Your task to perform on an android device: turn notification dots off Image 0: 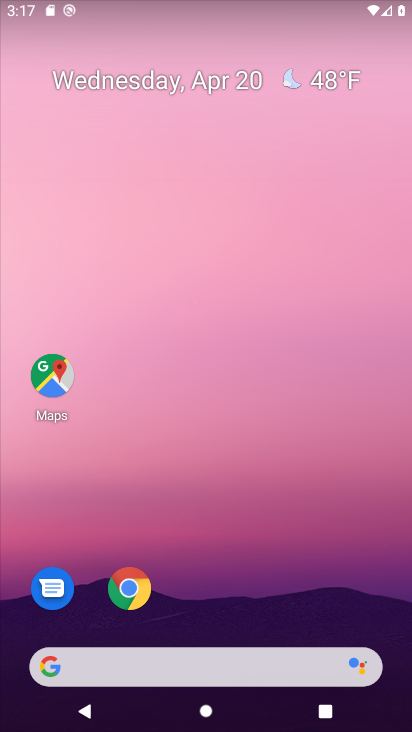
Step 0: drag from (283, 571) to (306, 198)
Your task to perform on an android device: turn notification dots off Image 1: 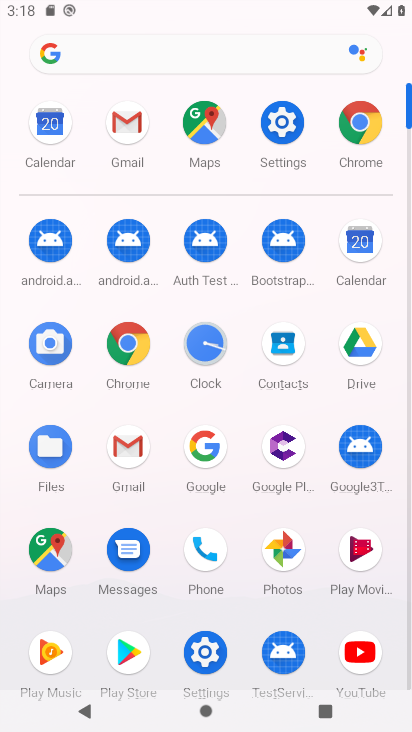
Step 1: click (278, 126)
Your task to perform on an android device: turn notification dots off Image 2: 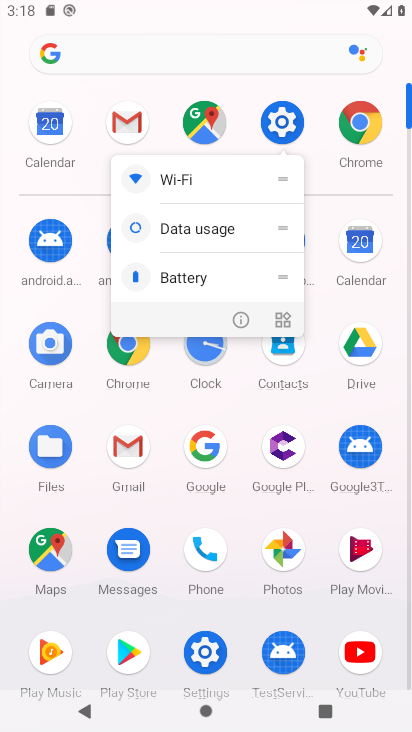
Step 2: click (270, 118)
Your task to perform on an android device: turn notification dots off Image 3: 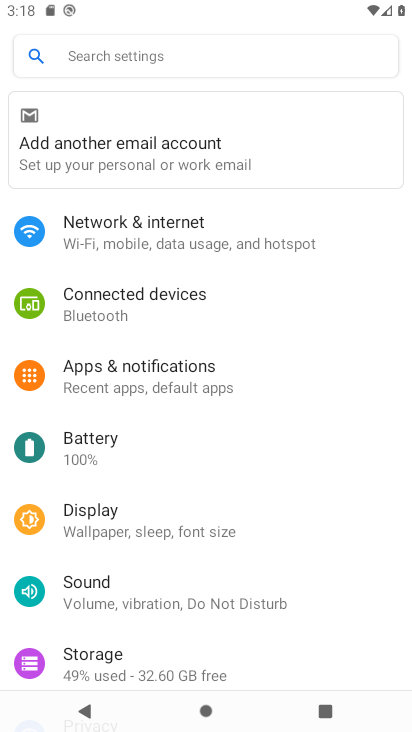
Step 3: drag from (365, 586) to (366, 395)
Your task to perform on an android device: turn notification dots off Image 4: 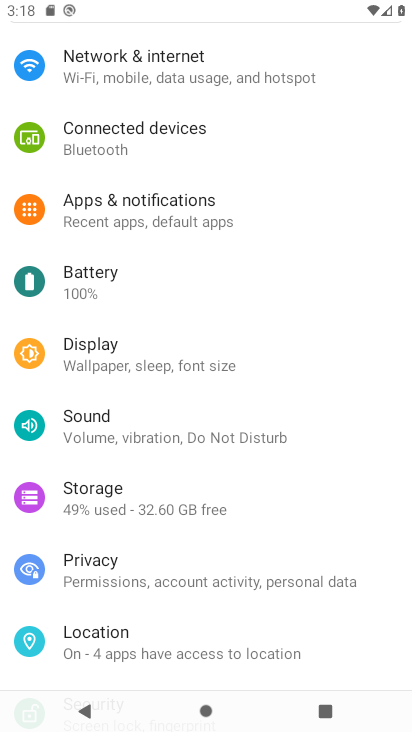
Step 4: drag from (346, 624) to (346, 413)
Your task to perform on an android device: turn notification dots off Image 5: 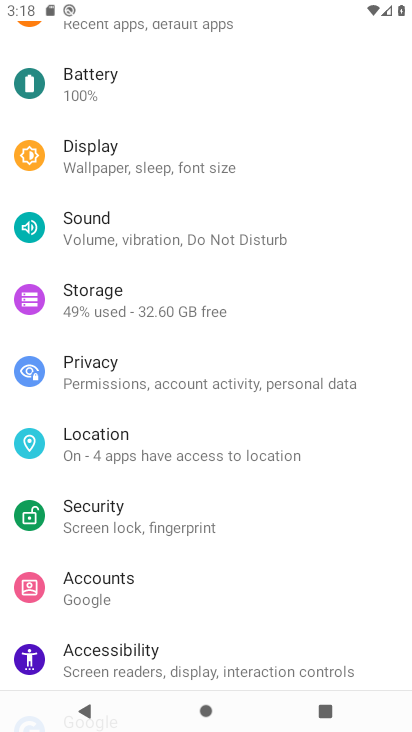
Step 5: drag from (356, 593) to (353, 392)
Your task to perform on an android device: turn notification dots off Image 6: 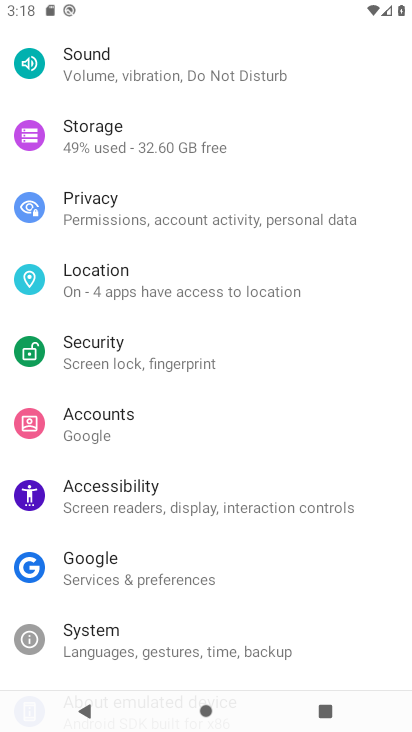
Step 6: drag from (368, 274) to (367, 420)
Your task to perform on an android device: turn notification dots off Image 7: 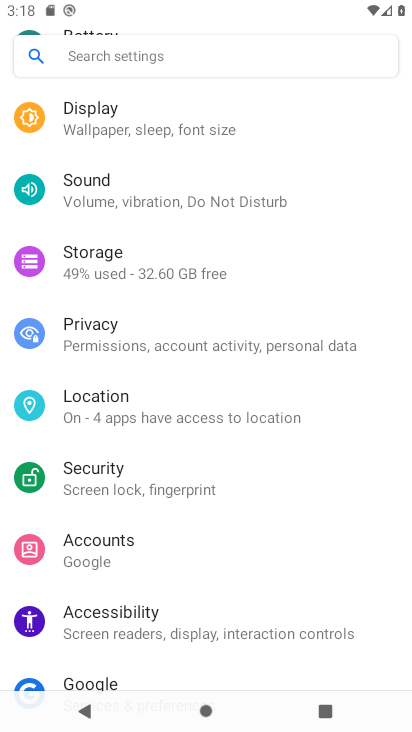
Step 7: drag from (380, 359) to (380, 420)
Your task to perform on an android device: turn notification dots off Image 8: 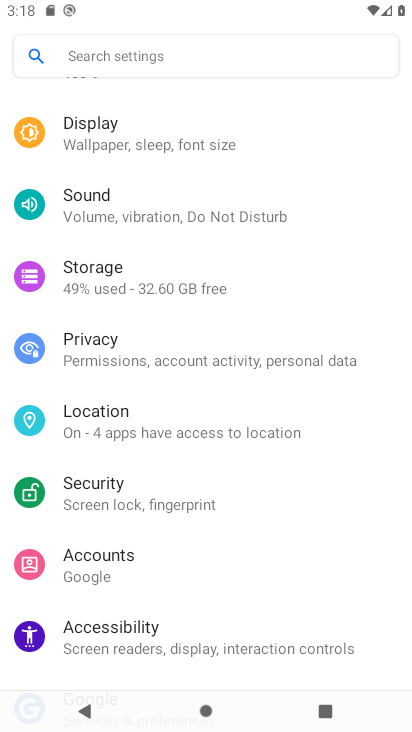
Step 8: drag from (355, 234) to (356, 504)
Your task to perform on an android device: turn notification dots off Image 9: 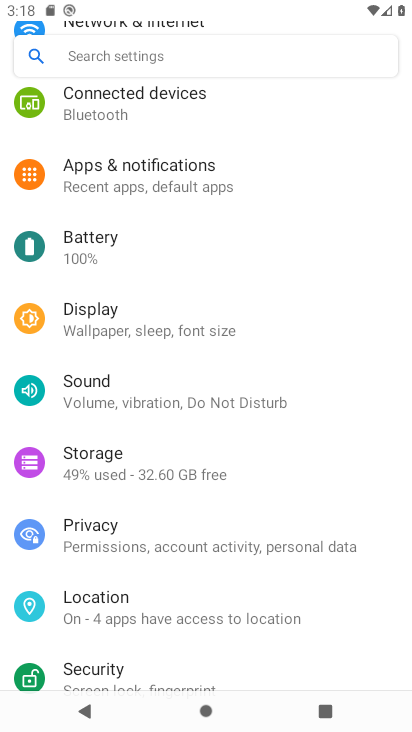
Step 9: drag from (348, 244) to (346, 451)
Your task to perform on an android device: turn notification dots off Image 10: 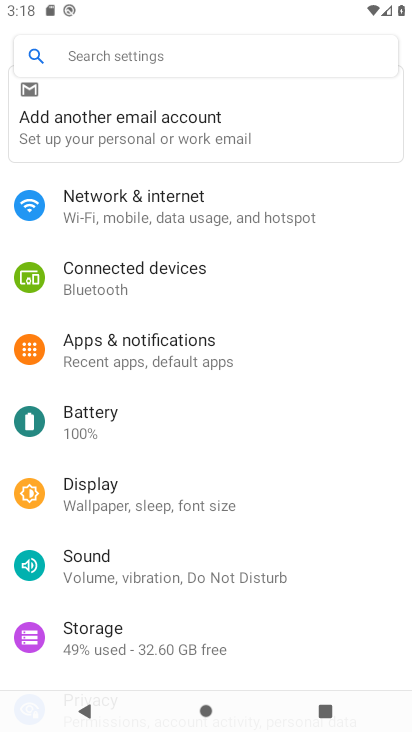
Step 10: click (134, 327)
Your task to perform on an android device: turn notification dots off Image 11: 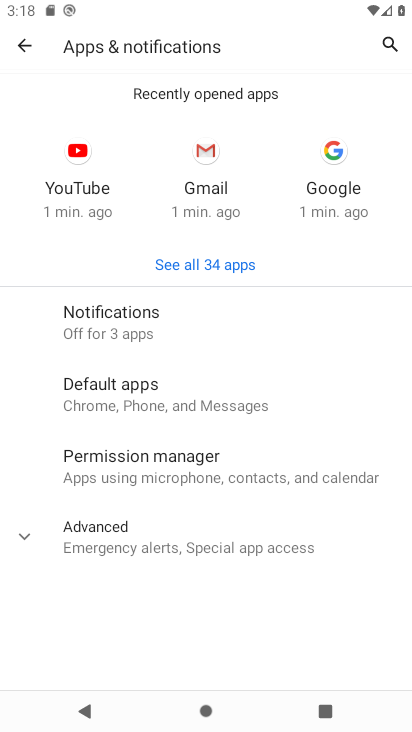
Step 11: click (102, 329)
Your task to perform on an android device: turn notification dots off Image 12: 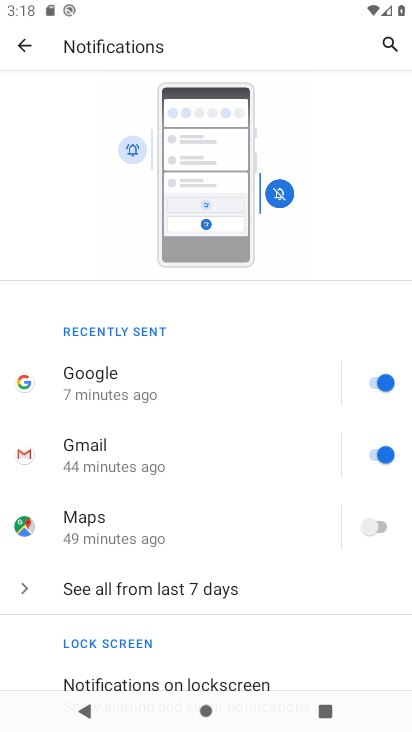
Step 12: drag from (298, 594) to (311, 307)
Your task to perform on an android device: turn notification dots off Image 13: 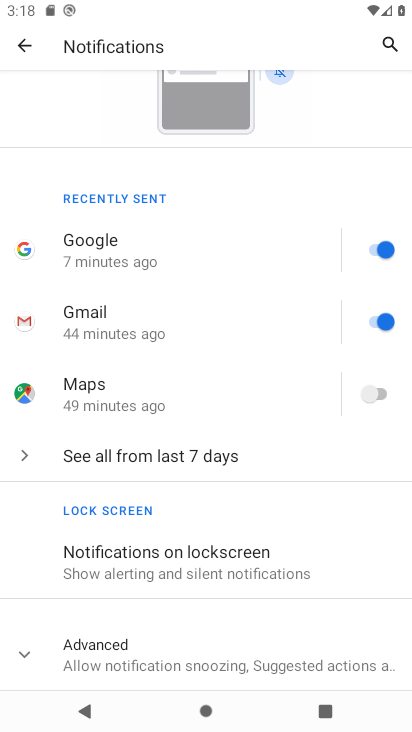
Step 13: drag from (288, 600) to (283, 347)
Your task to perform on an android device: turn notification dots off Image 14: 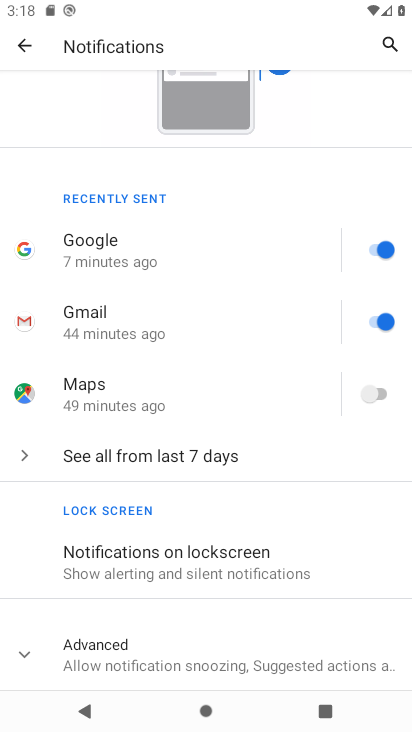
Step 14: click (153, 653)
Your task to perform on an android device: turn notification dots off Image 15: 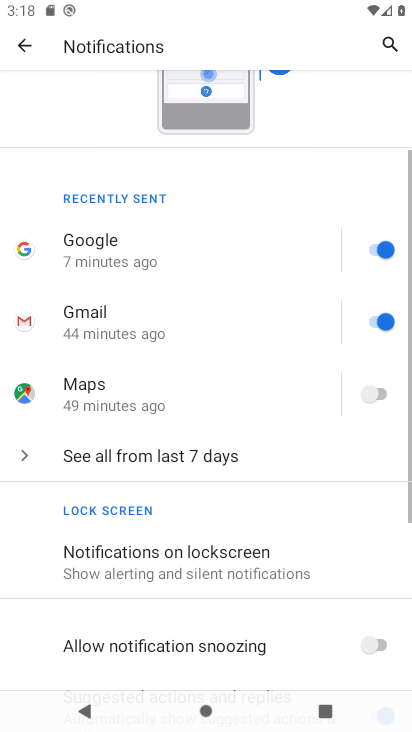
Step 15: drag from (311, 627) to (315, 327)
Your task to perform on an android device: turn notification dots off Image 16: 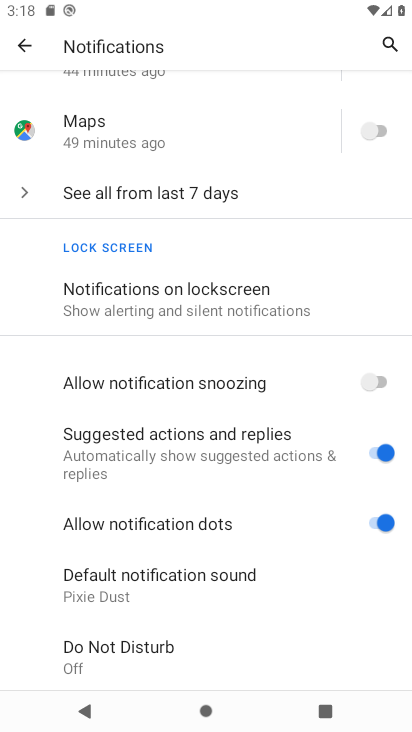
Step 16: click (378, 522)
Your task to perform on an android device: turn notification dots off Image 17: 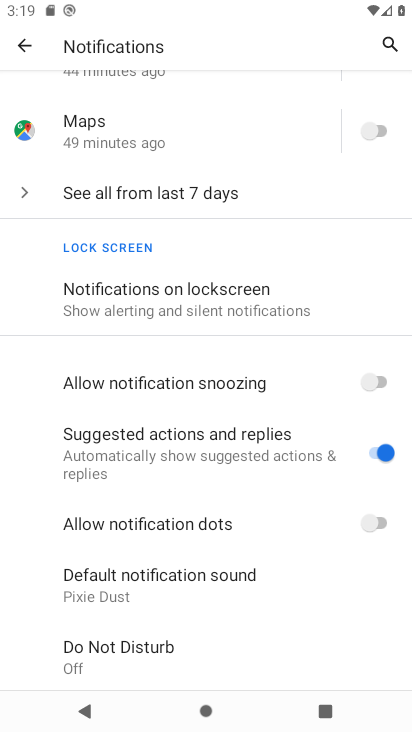
Step 17: task complete